Your task to perform on an android device: toggle data saver in the chrome app Image 0: 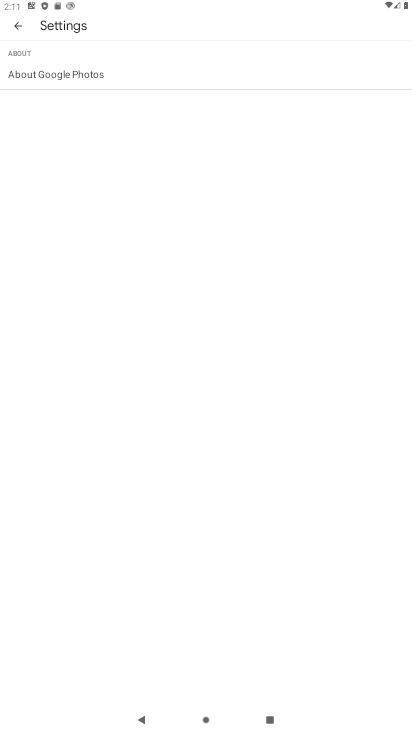
Step 0: press home button
Your task to perform on an android device: toggle data saver in the chrome app Image 1: 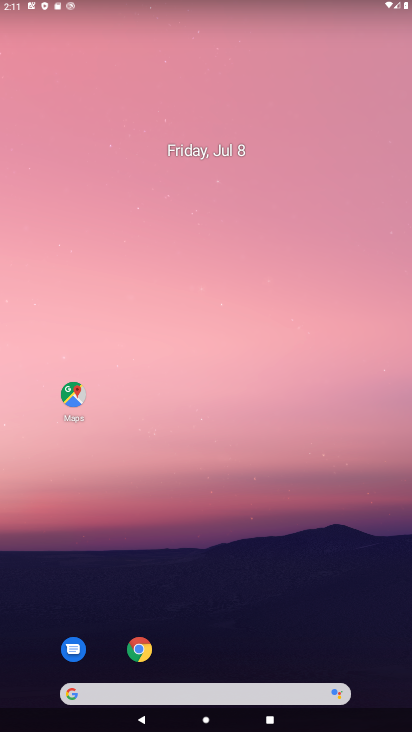
Step 1: click (140, 650)
Your task to perform on an android device: toggle data saver in the chrome app Image 2: 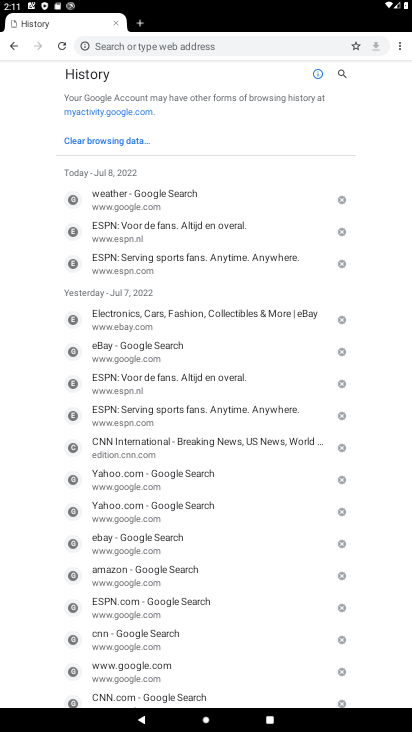
Step 2: click (397, 47)
Your task to perform on an android device: toggle data saver in the chrome app Image 3: 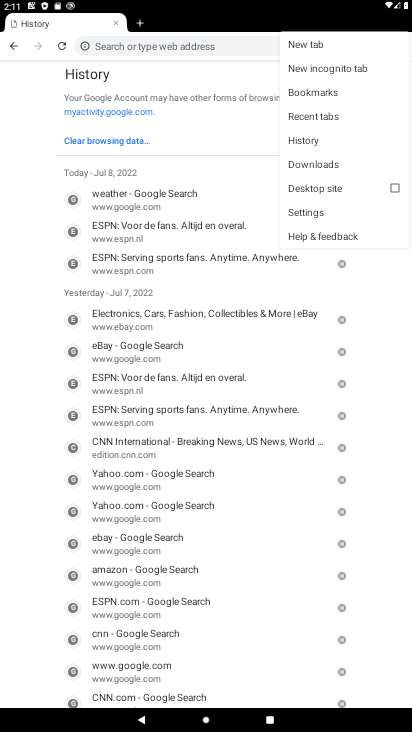
Step 3: click (316, 211)
Your task to perform on an android device: toggle data saver in the chrome app Image 4: 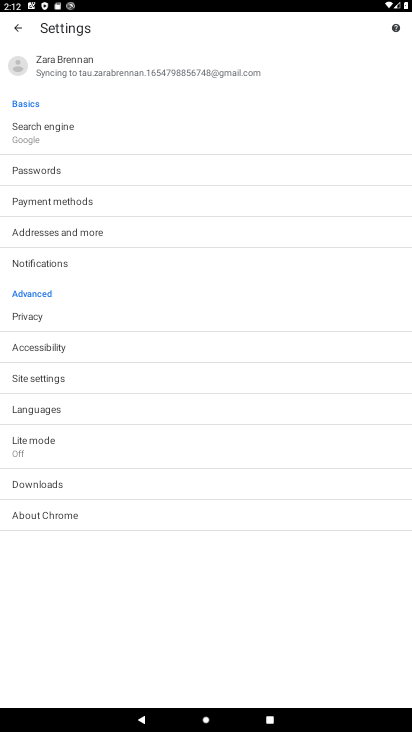
Step 4: click (31, 440)
Your task to perform on an android device: toggle data saver in the chrome app Image 5: 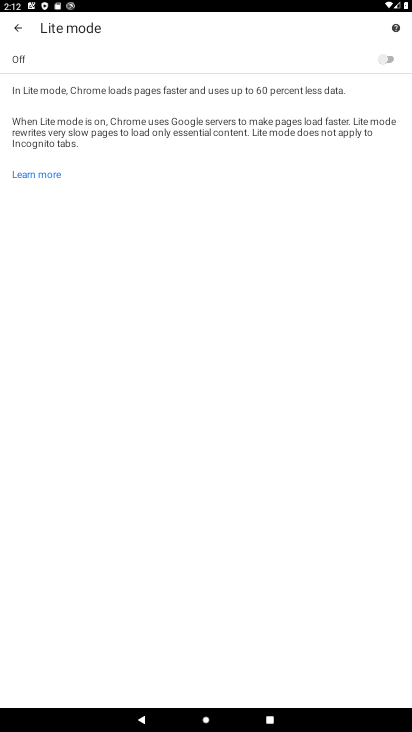
Step 5: click (392, 59)
Your task to perform on an android device: toggle data saver in the chrome app Image 6: 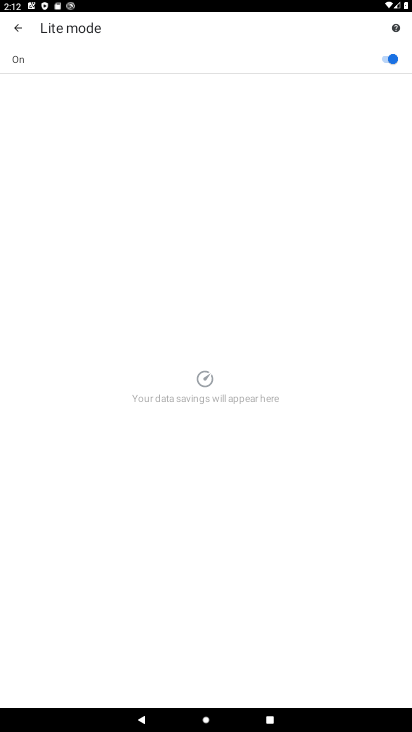
Step 6: task complete